Your task to perform on an android device: toggle priority inbox in the gmail app Image 0: 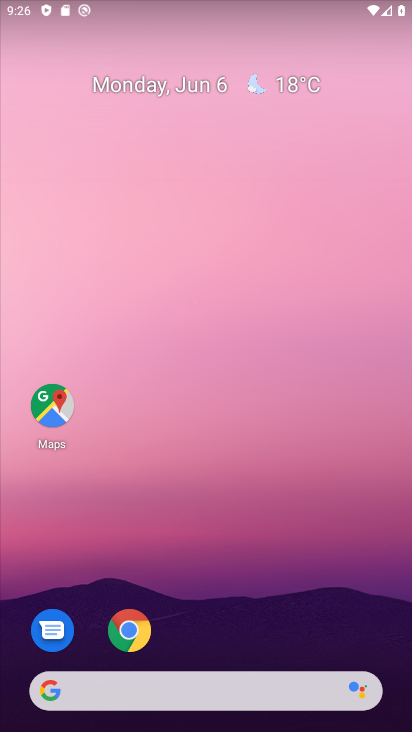
Step 0: drag from (189, 676) to (285, 233)
Your task to perform on an android device: toggle priority inbox in the gmail app Image 1: 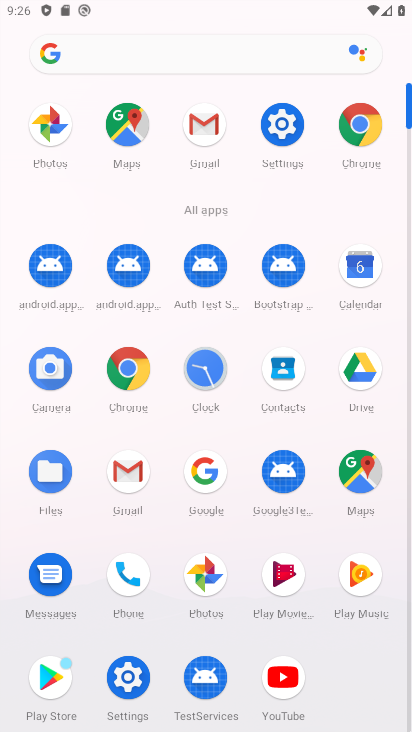
Step 1: click (211, 140)
Your task to perform on an android device: toggle priority inbox in the gmail app Image 2: 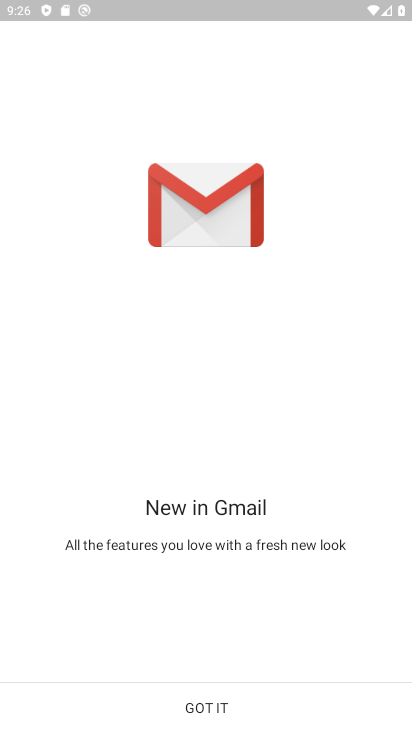
Step 2: click (194, 712)
Your task to perform on an android device: toggle priority inbox in the gmail app Image 3: 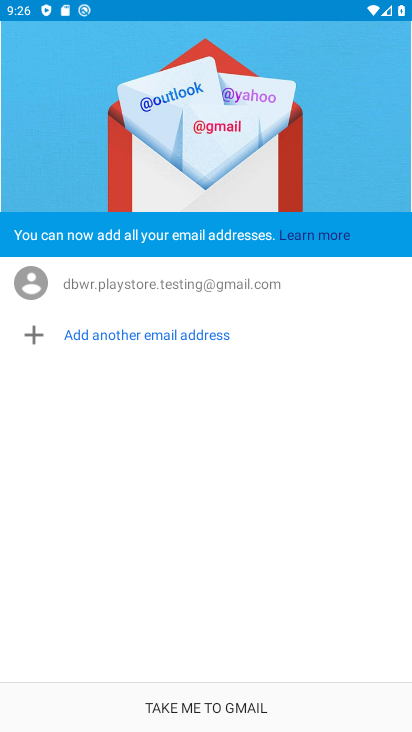
Step 3: click (202, 705)
Your task to perform on an android device: toggle priority inbox in the gmail app Image 4: 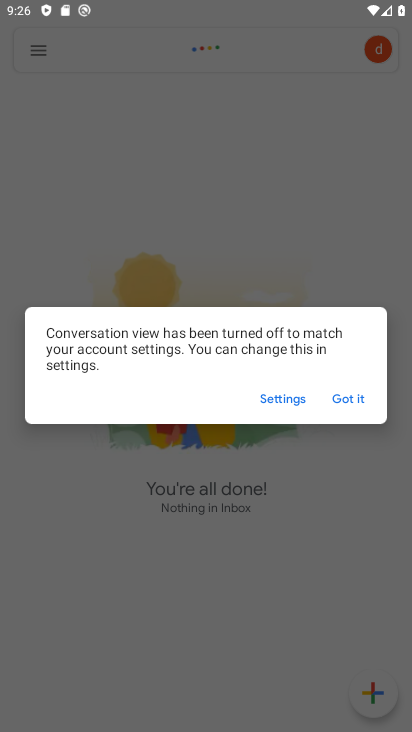
Step 4: click (351, 400)
Your task to perform on an android device: toggle priority inbox in the gmail app Image 5: 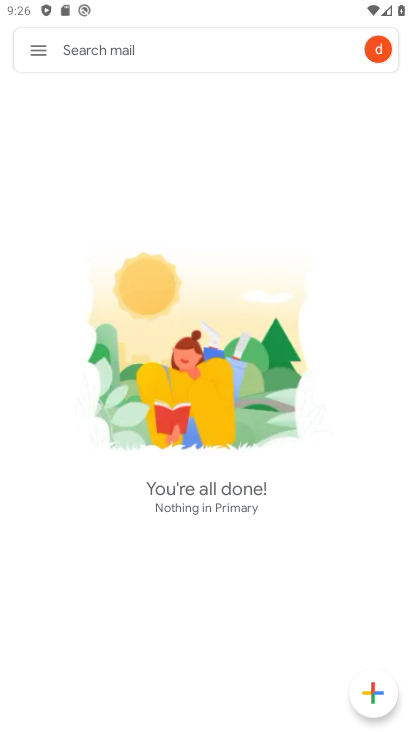
Step 5: click (48, 54)
Your task to perform on an android device: toggle priority inbox in the gmail app Image 6: 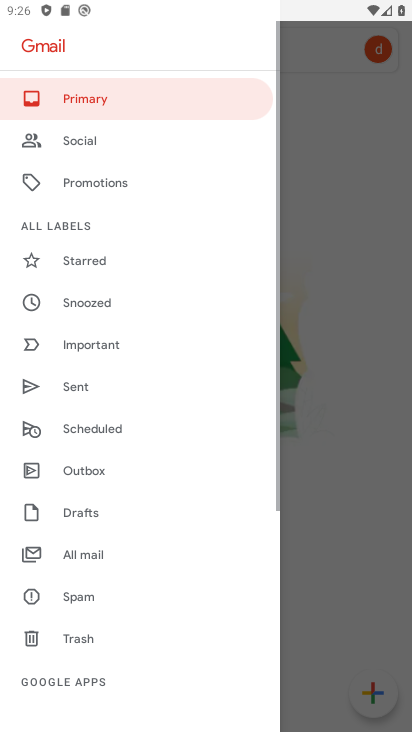
Step 6: drag from (101, 684) to (120, 446)
Your task to perform on an android device: toggle priority inbox in the gmail app Image 7: 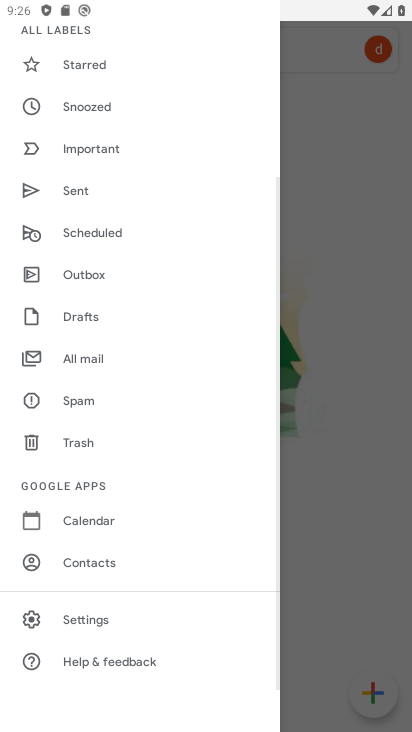
Step 7: click (98, 622)
Your task to perform on an android device: toggle priority inbox in the gmail app Image 8: 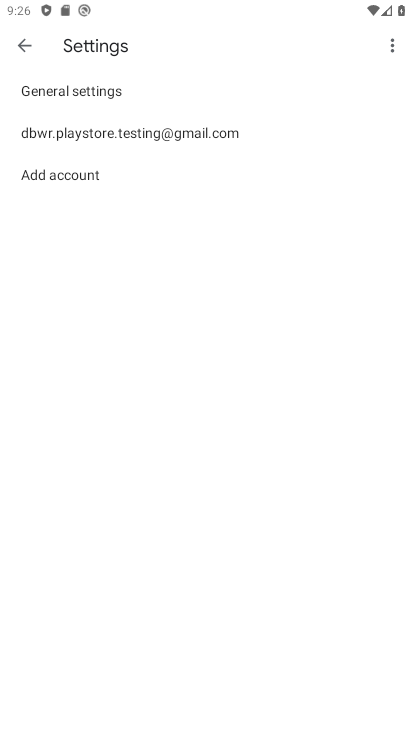
Step 8: click (126, 140)
Your task to perform on an android device: toggle priority inbox in the gmail app Image 9: 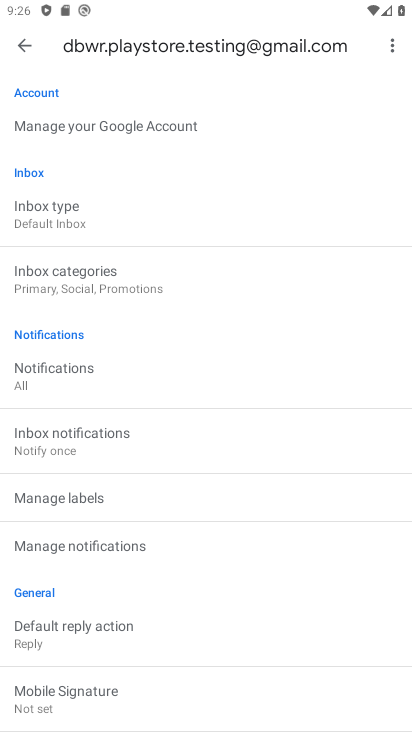
Step 9: click (77, 220)
Your task to perform on an android device: toggle priority inbox in the gmail app Image 10: 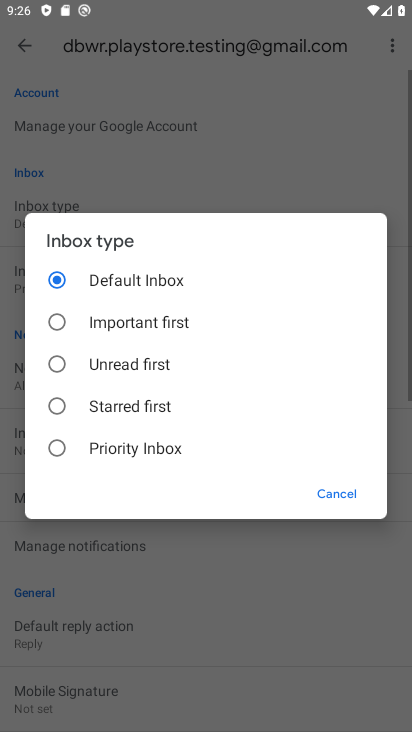
Step 10: click (99, 450)
Your task to perform on an android device: toggle priority inbox in the gmail app Image 11: 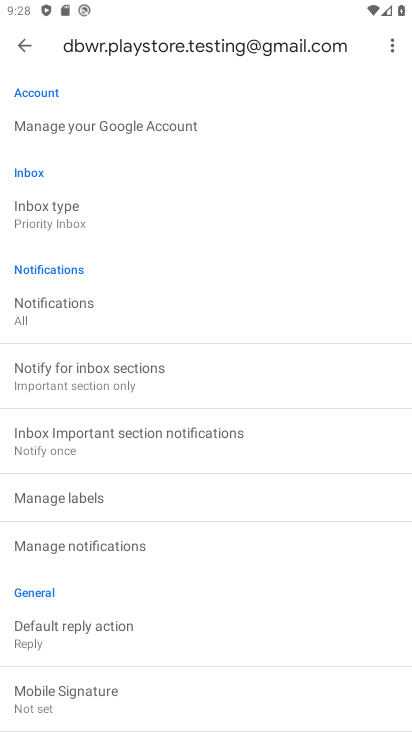
Step 11: task complete